Your task to perform on an android device: Go to Reddit.com Image 0: 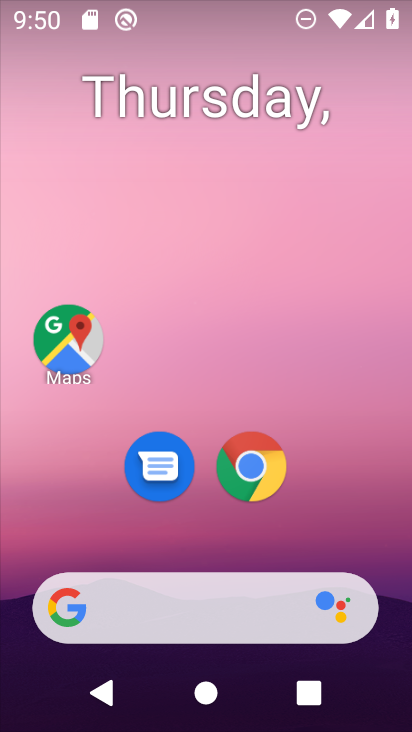
Step 0: drag from (381, 571) to (385, 12)
Your task to perform on an android device: Go to Reddit.com Image 1: 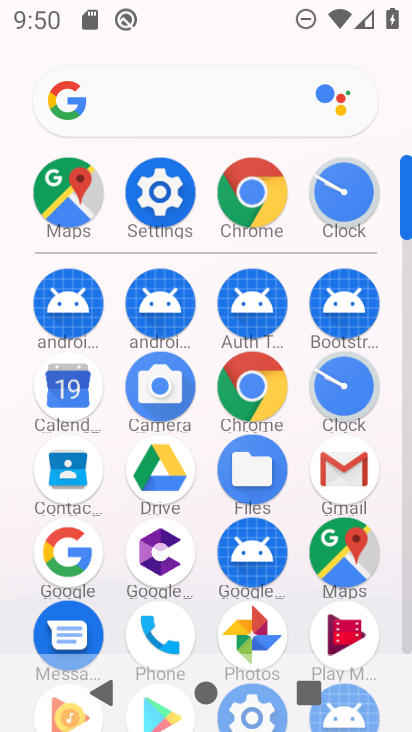
Step 1: click (261, 393)
Your task to perform on an android device: Go to Reddit.com Image 2: 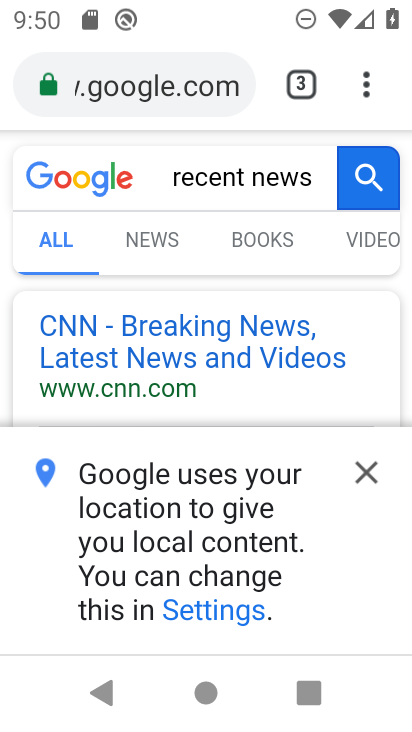
Step 2: click (155, 74)
Your task to perform on an android device: Go to Reddit.com Image 3: 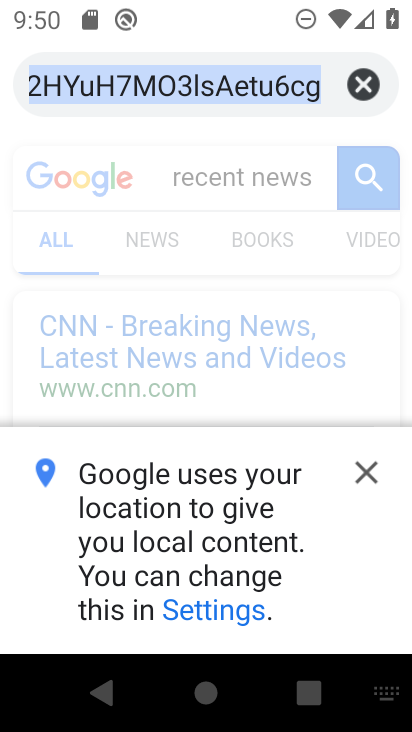
Step 3: click (362, 82)
Your task to perform on an android device: Go to Reddit.com Image 4: 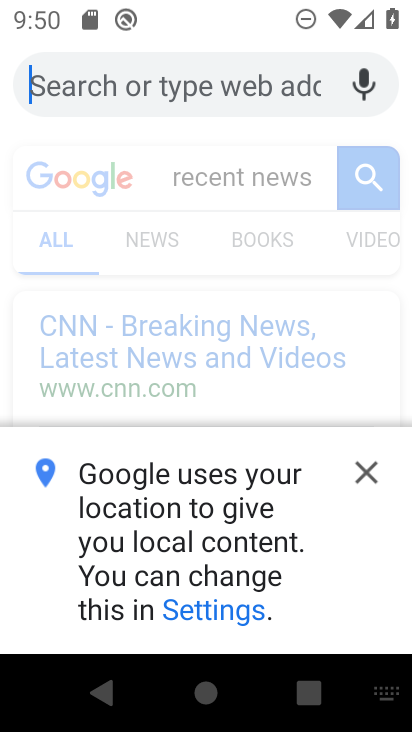
Step 4: type "reddit.com"
Your task to perform on an android device: Go to Reddit.com Image 5: 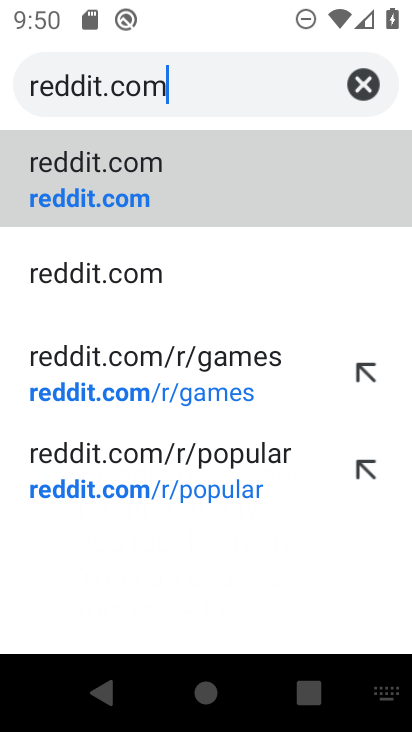
Step 5: click (66, 159)
Your task to perform on an android device: Go to Reddit.com Image 6: 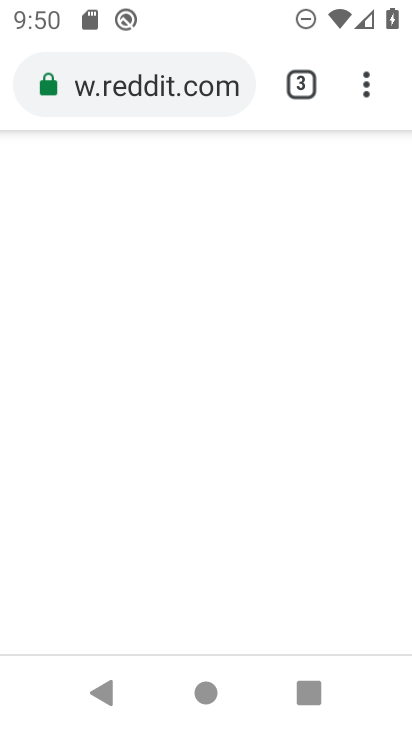
Step 6: task complete